Your task to perform on an android device: Find coffee shops on Maps Image 0: 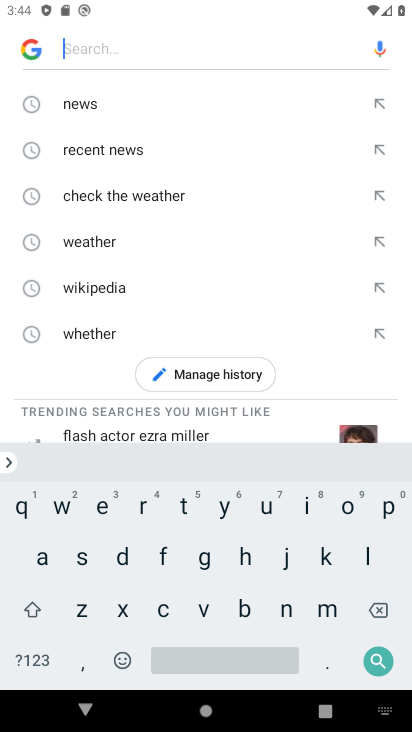
Step 0: press home button
Your task to perform on an android device: Find coffee shops on Maps Image 1: 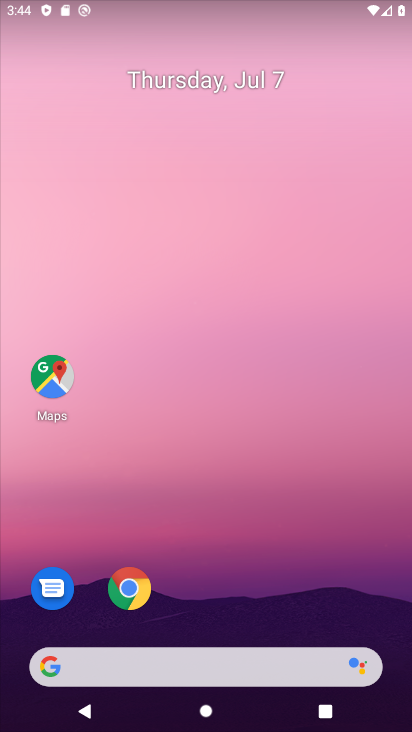
Step 1: click (53, 378)
Your task to perform on an android device: Find coffee shops on Maps Image 2: 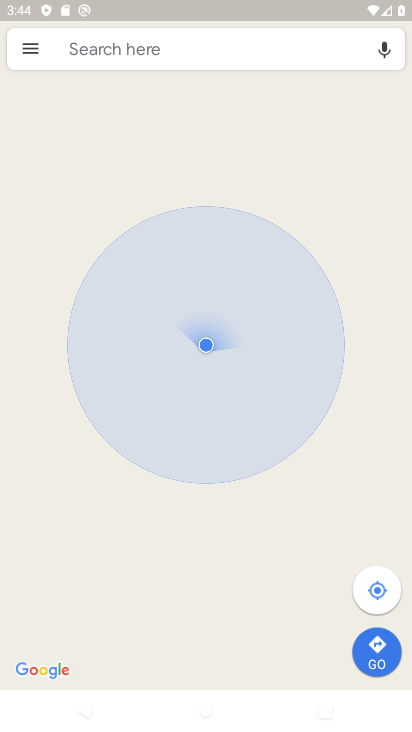
Step 2: click (123, 39)
Your task to perform on an android device: Find coffee shops on Maps Image 3: 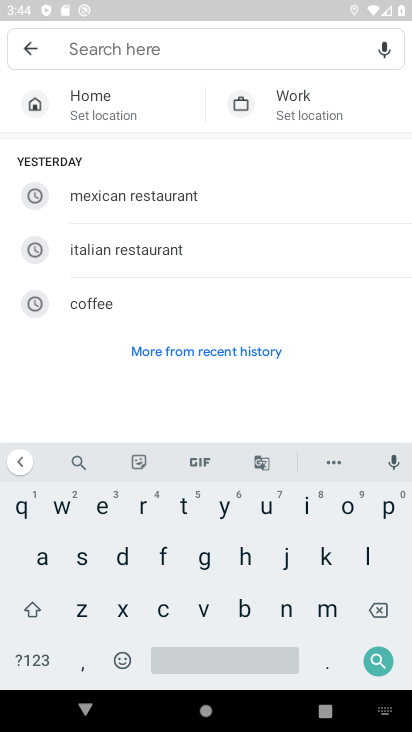
Step 3: click (109, 299)
Your task to perform on an android device: Find coffee shops on Maps Image 4: 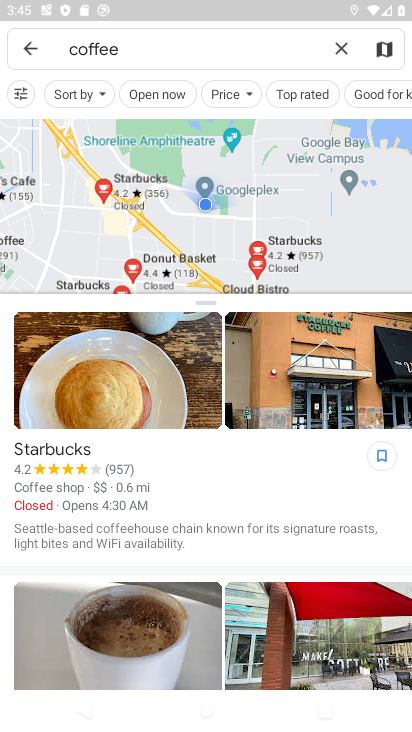
Step 4: task complete